Your task to perform on an android device: toggle location history Image 0: 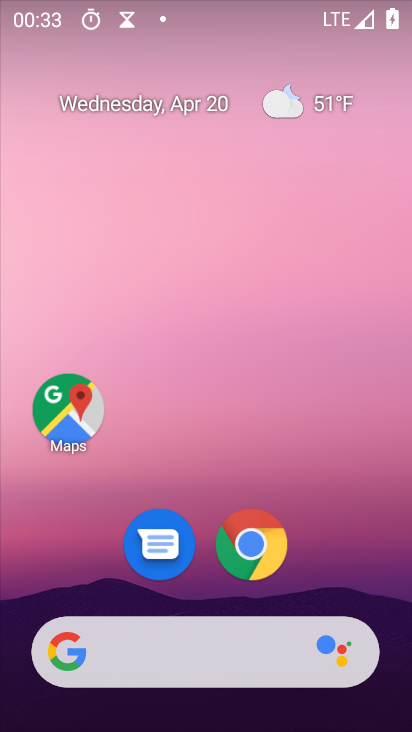
Step 0: drag from (343, 497) to (399, 71)
Your task to perform on an android device: toggle location history Image 1: 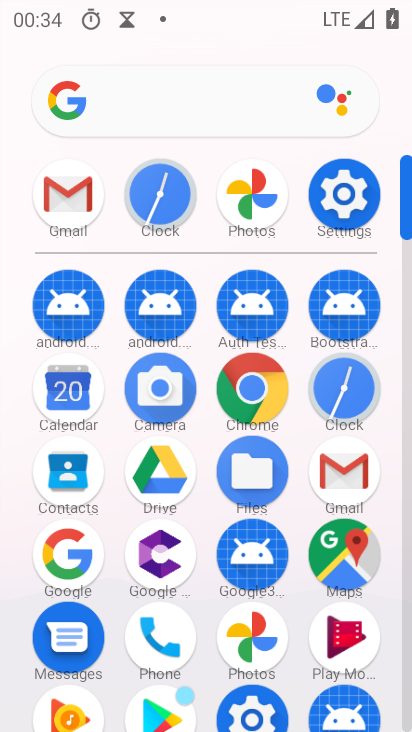
Step 1: click (367, 186)
Your task to perform on an android device: toggle location history Image 2: 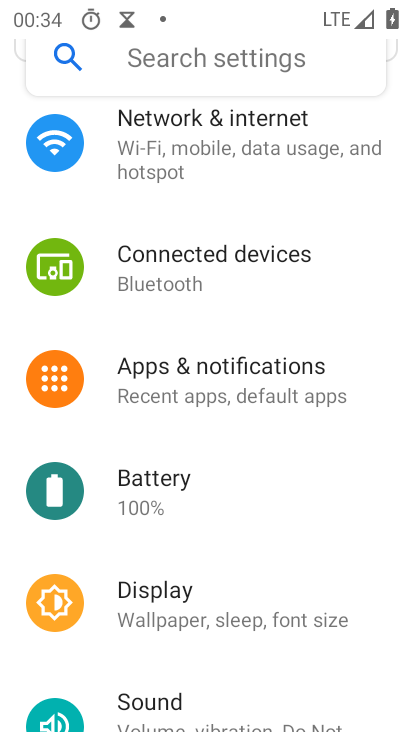
Step 2: drag from (200, 616) to (241, 520)
Your task to perform on an android device: toggle location history Image 3: 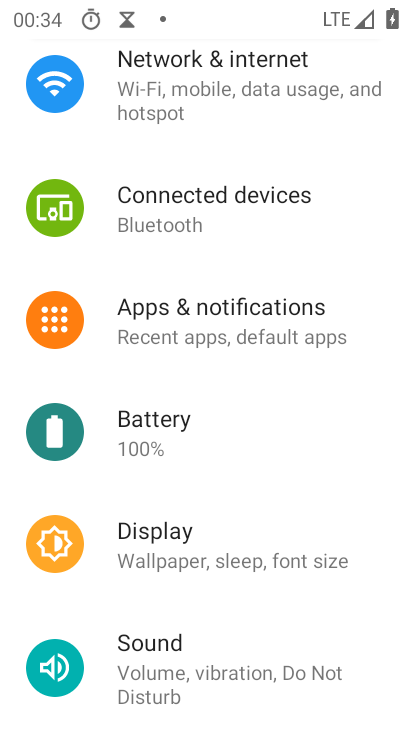
Step 3: drag from (236, 567) to (278, 496)
Your task to perform on an android device: toggle location history Image 4: 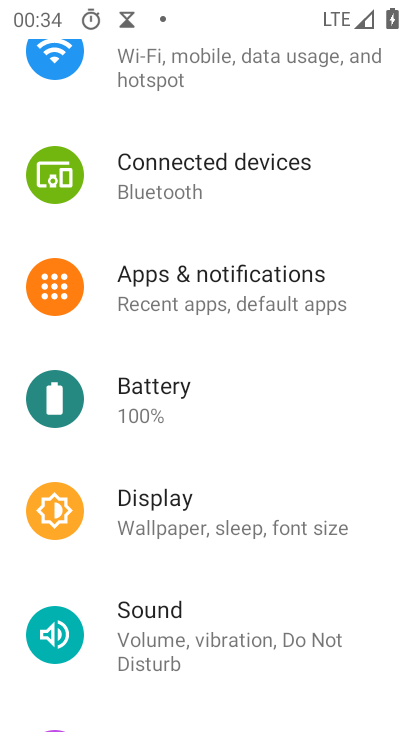
Step 4: drag from (245, 604) to (271, 559)
Your task to perform on an android device: toggle location history Image 5: 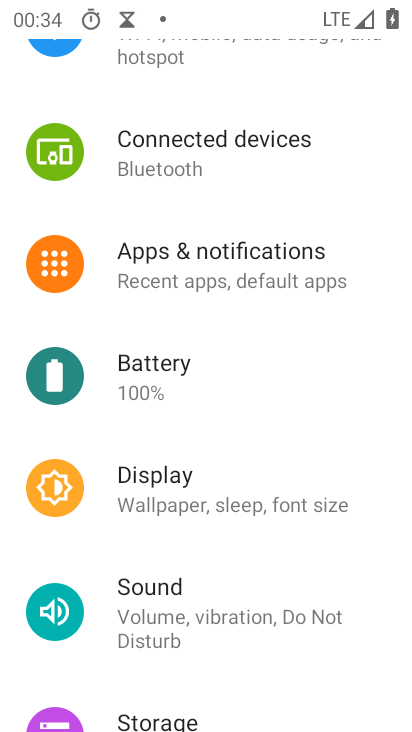
Step 5: drag from (220, 621) to (237, 535)
Your task to perform on an android device: toggle location history Image 6: 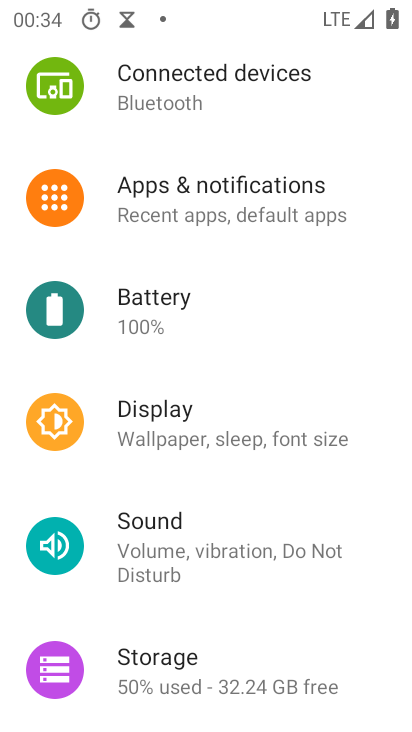
Step 6: drag from (222, 627) to (262, 535)
Your task to perform on an android device: toggle location history Image 7: 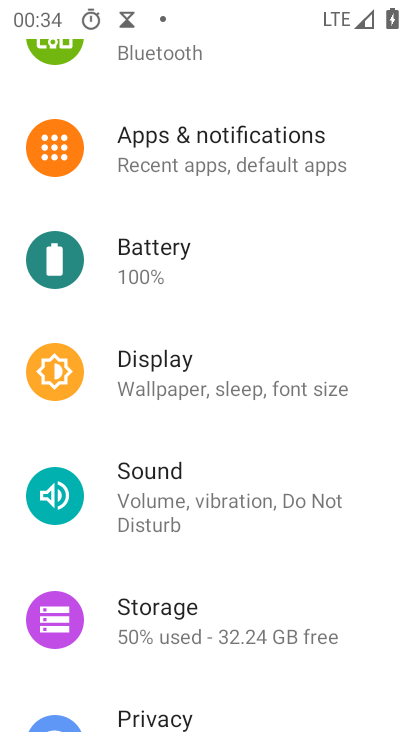
Step 7: drag from (252, 615) to (263, 553)
Your task to perform on an android device: toggle location history Image 8: 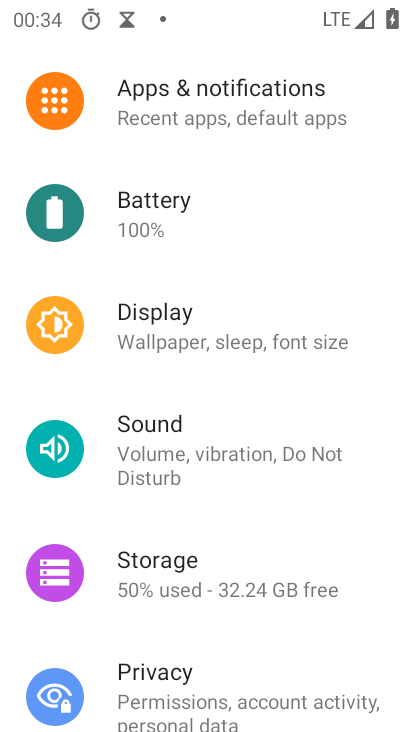
Step 8: drag from (235, 624) to (273, 536)
Your task to perform on an android device: toggle location history Image 9: 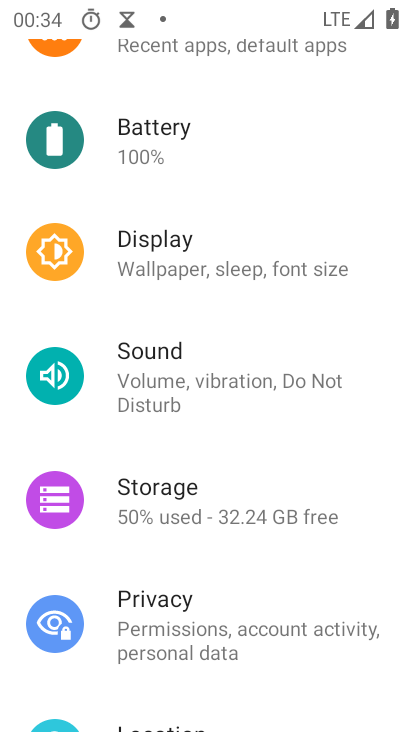
Step 9: drag from (260, 603) to (290, 499)
Your task to perform on an android device: toggle location history Image 10: 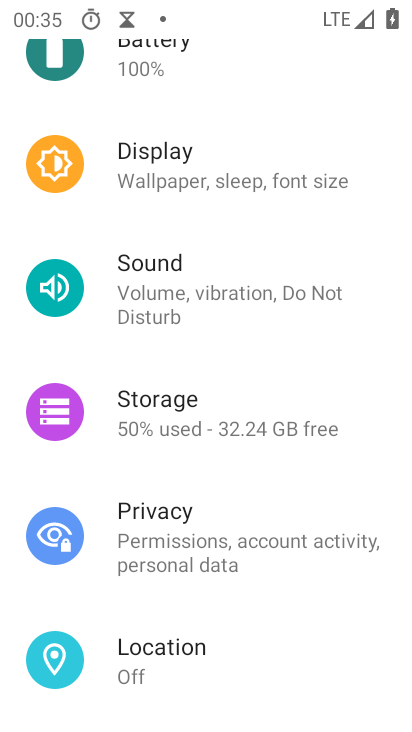
Step 10: drag from (271, 586) to (320, 464)
Your task to perform on an android device: toggle location history Image 11: 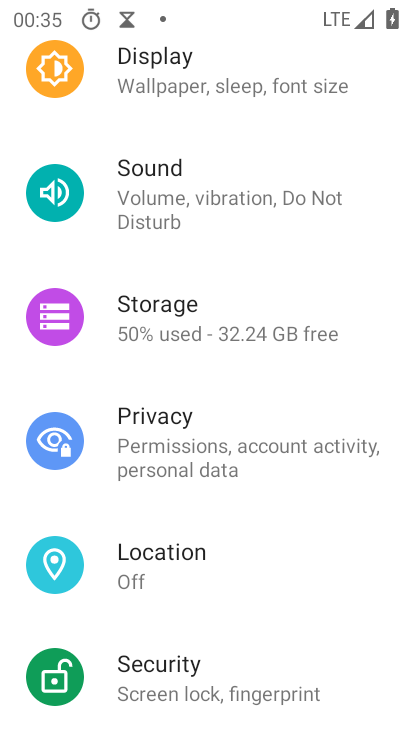
Step 11: drag from (275, 563) to (325, 447)
Your task to perform on an android device: toggle location history Image 12: 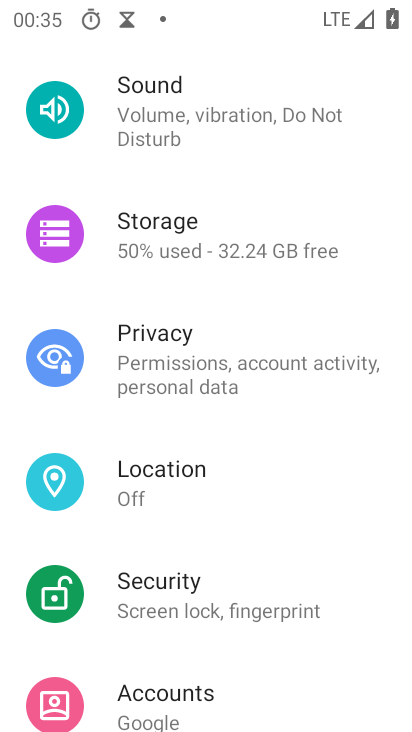
Step 12: drag from (267, 593) to (303, 511)
Your task to perform on an android device: toggle location history Image 13: 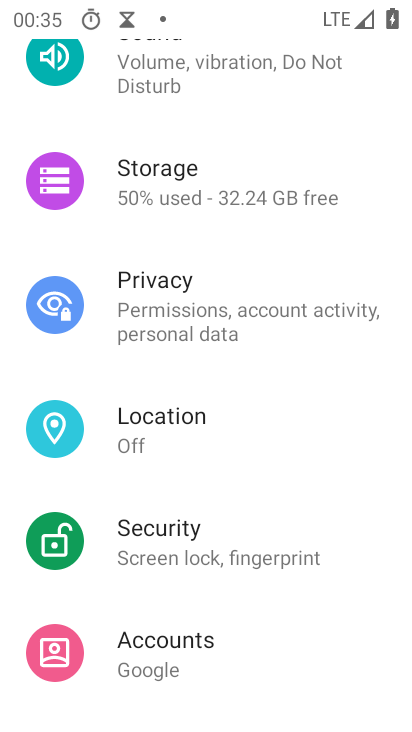
Step 13: click (275, 428)
Your task to perform on an android device: toggle location history Image 14: 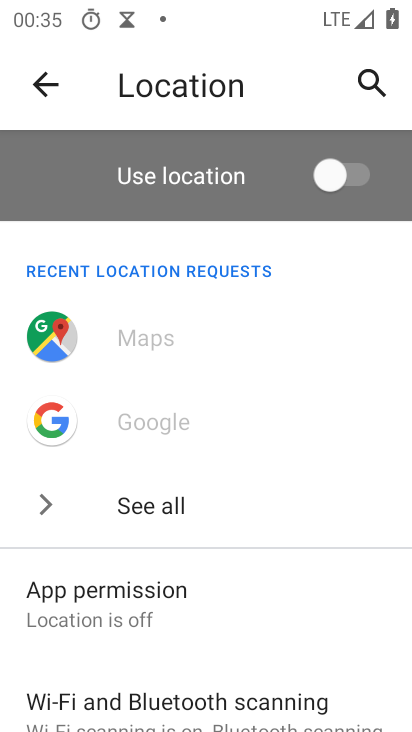
Step 14: drag from (254, 411) to (267, 364)
Your task to perform on an android device: toggle location history Image 15: 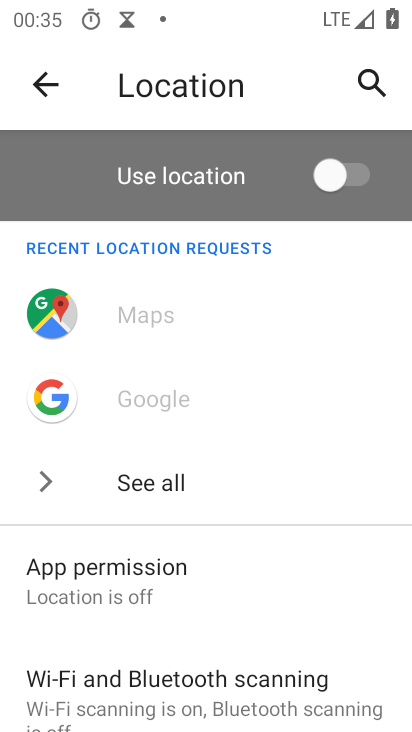
Step 15: drag from (249, 515) to (316, 343)
Your task to perform on an android device: toggle location history Image 16: 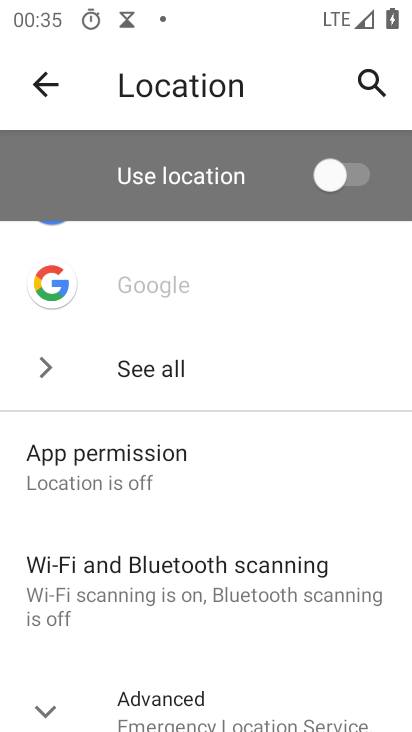
Step 16: drag from (289, 647) to (352, 460)
Your task to perform on an android device: toggle location history Image 17: 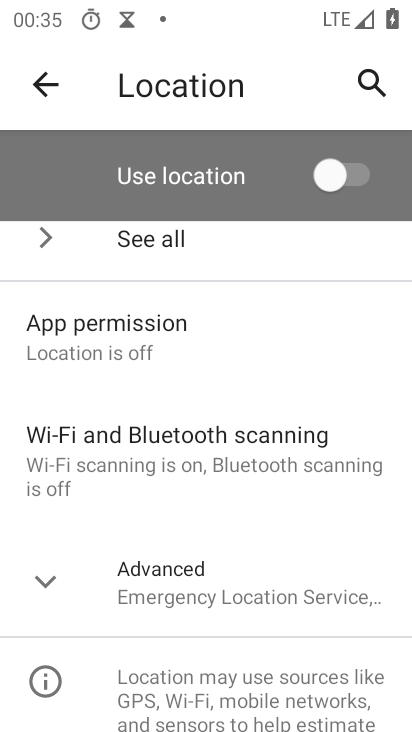
Step 17: click (248, 607)
Your task to perform on an android device: toggle location history Image 18: 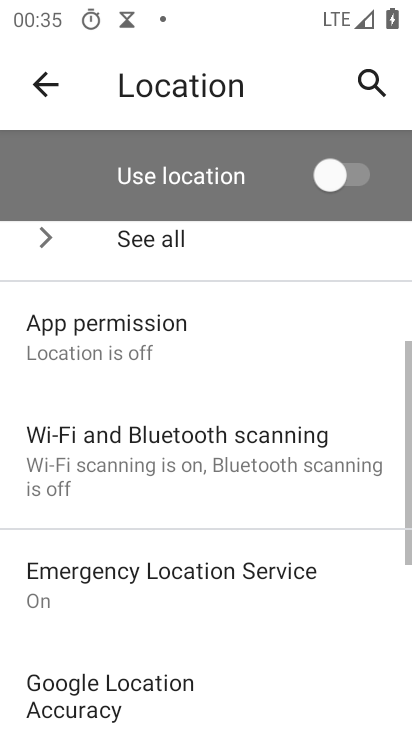
Step 18: drag from (236, 633) to (271, 545)
Your task to perform on an android device: toggle location history Image 19: 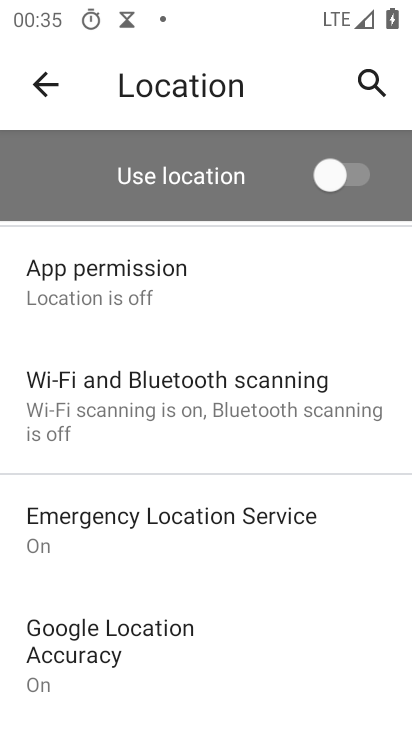
Step 19: drag from (229, 651) to (263, 545)
Your task to perform on an android device: toggle location history Image 20: 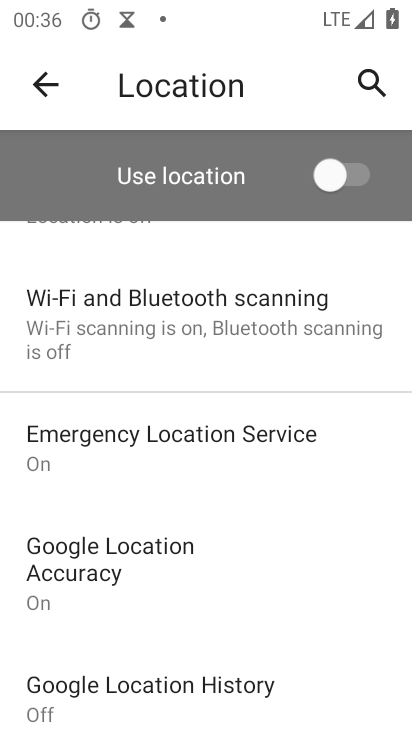
Step 20: drag from (223, 678) to (279, 528)
Your task to perform on an android device: toggle location history Image 21: 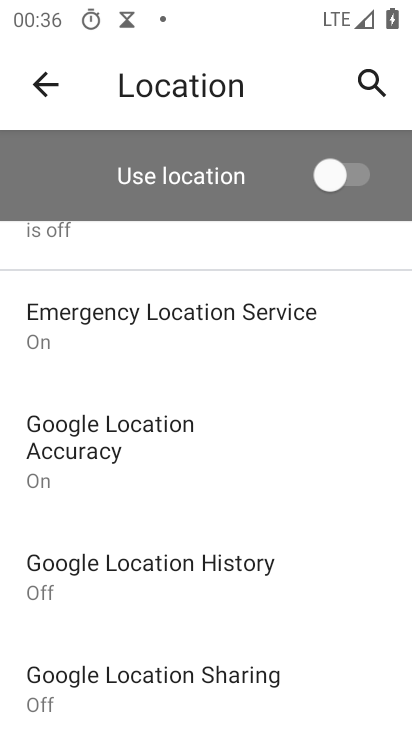
Step 21: click (228, 592)
Your task to perform on an android device: toggle location history Image 22: 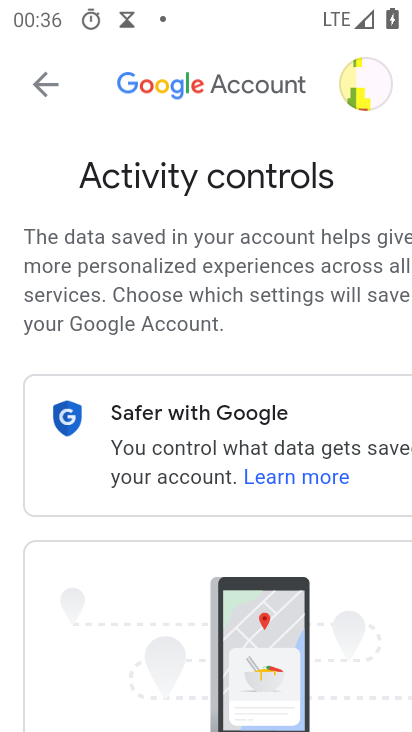
Step 22: drag from (311, 653) to (400, 302)
Your task to perform on an android device: toggle location history Image 23: 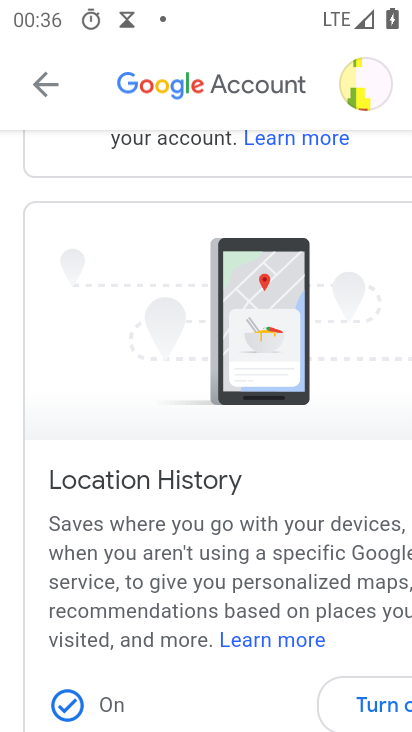
Step 23: click (358, 705)
Your task to perform on an android device: toggle location history Image 24: 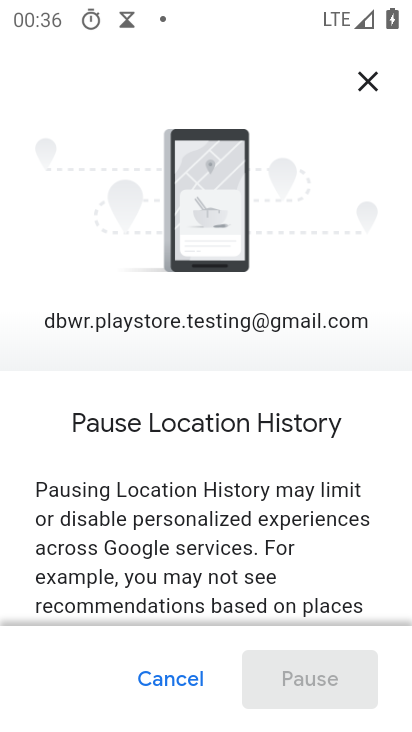
Step 24: drag from (305, 612) to (345, 115)
Your task to perform on an android device: toggle location history Image 25: 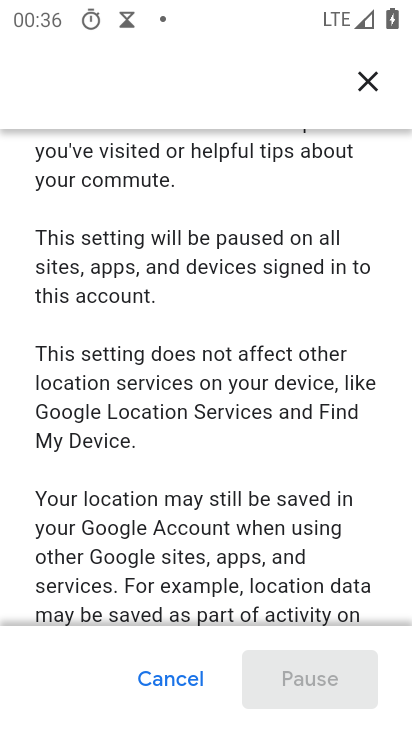
Step 25: drag from (250, 506) to (334, 116)
Your task to perform on an android device: toggle location history Image 26: 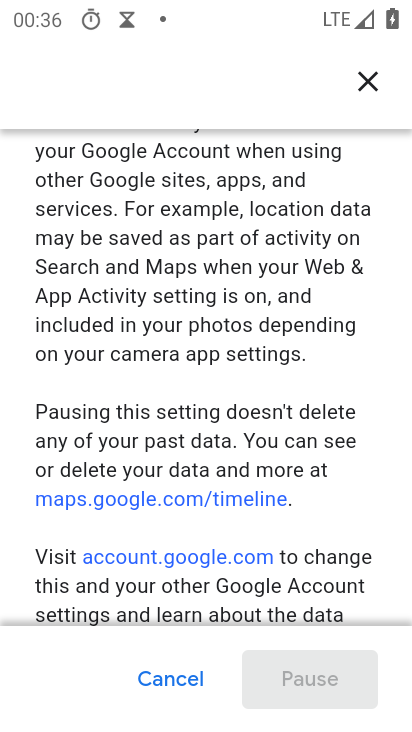
Step 26: drag from (286, 482) to (383, 67)
Your task to perform on an android device: toggle location history Image 27: 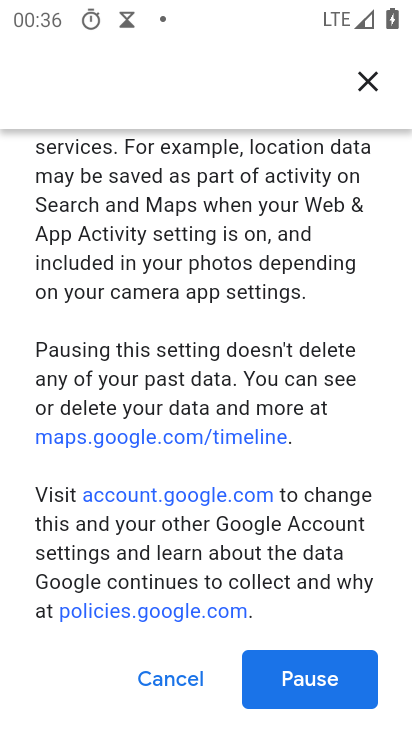
Step 27: click (323, 675)
Your task to perform on an android device: toggle location history Image 28: 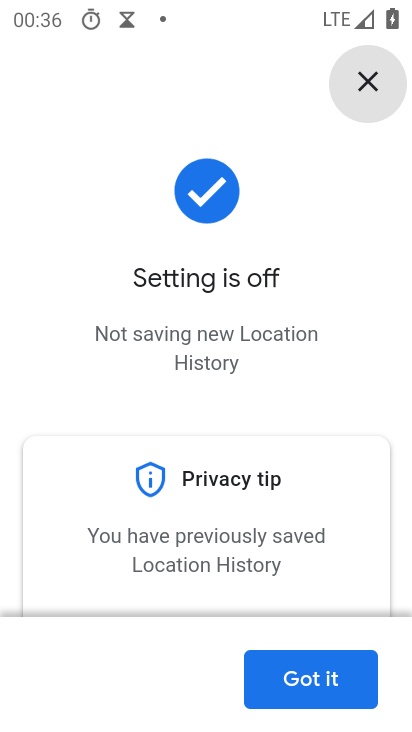
Step 28: click (286, 705)
Your task to perform on an android device: toggle location history Image 29: 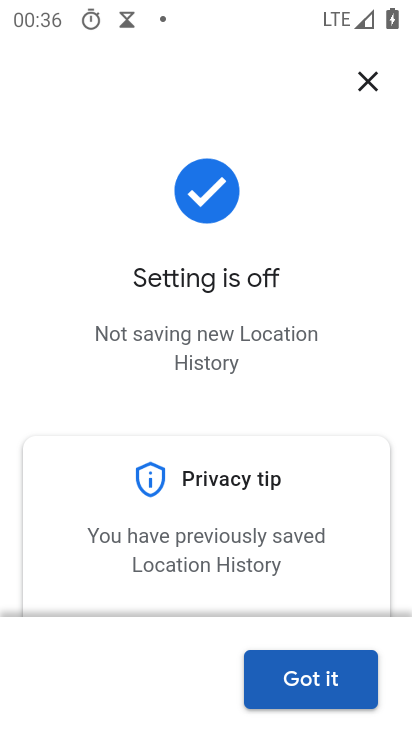
Step 29: task complete